Your task to perform on an android device: Show me recent news Image 0: 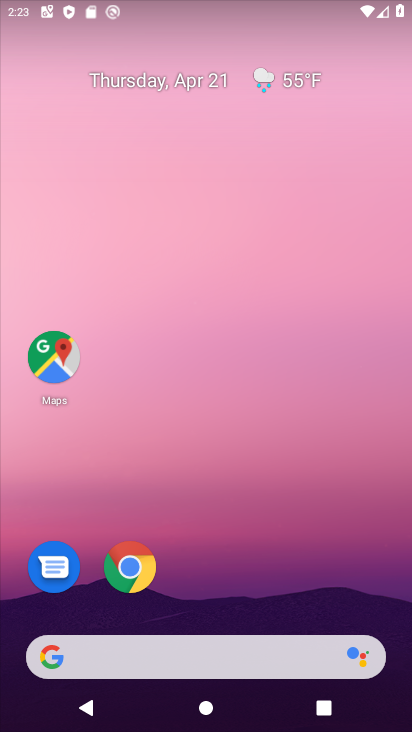
Step 0: drag from (254, 610) to (233, 96)
Your task to perform on an android device: Show me recent news Image 1: 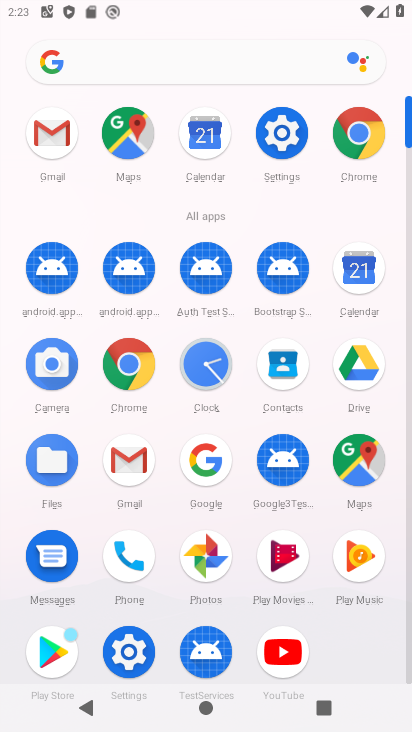
Step 1: click (134, 359)
Your task to perform on an android device: Show me recent news Image 2: 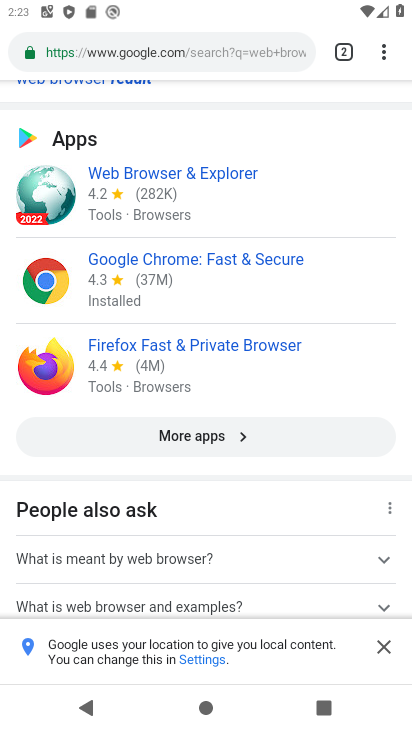
Step 2: click (264, 54)
Your task to perform on an android device: Show me recent news Image 3: 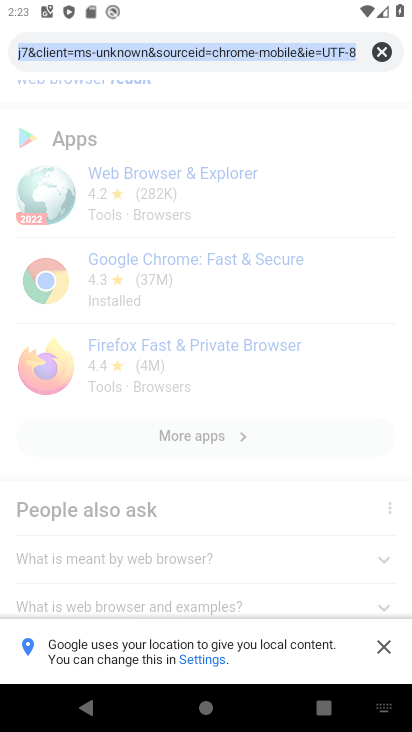
Step 3: click (384, 51)
Your task to perform on an android device: Show me recent news Image 4: 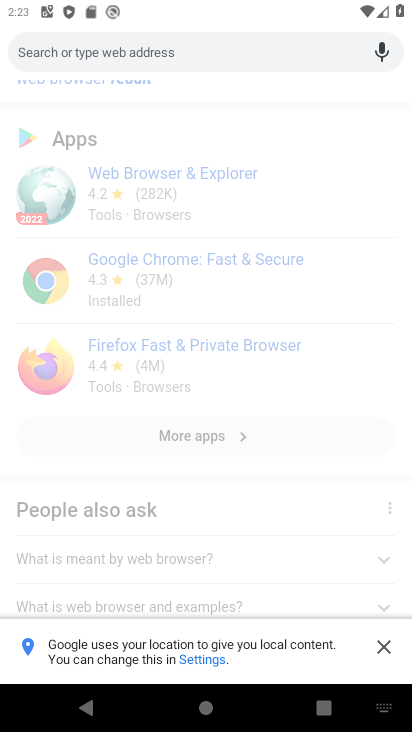
Step 4: type "recent news"
Your task to perform on an android device: Show me recent news Image 5: 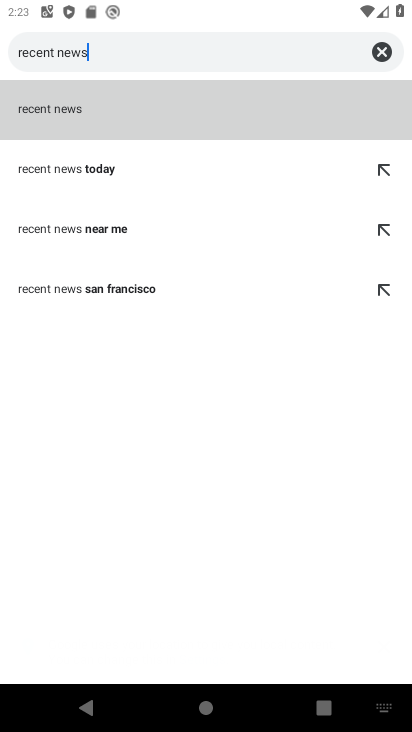
Step 5: click (43, 109)
Your task to perform on an android device: Show me recent news Image 6: 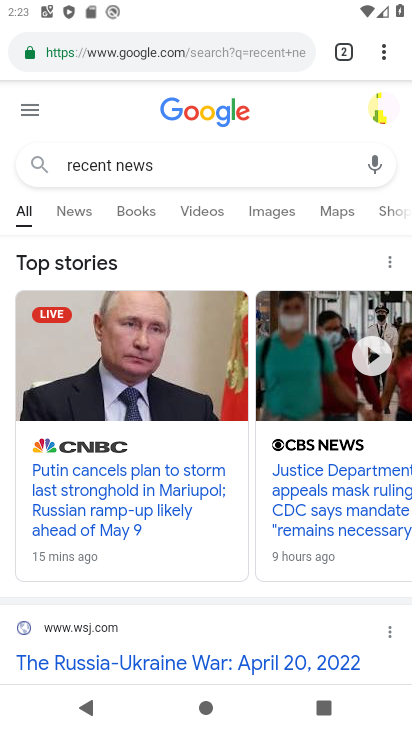
Step 6: click (72, 207)
Your task to perform on an android device: Show me recent news Image 7: 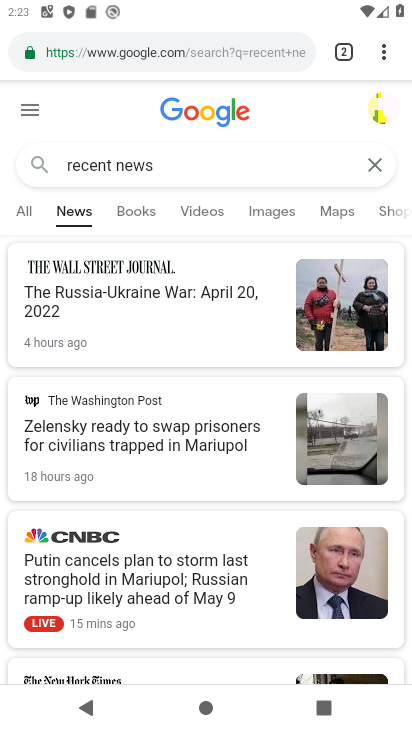
Step 7: task complete